Your task to perform on an android device: turn off airplane mode Image 0: 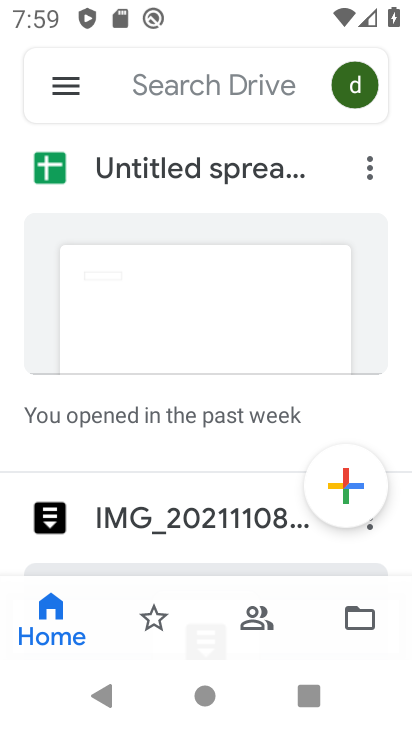
Step 0: press home button
Your task to perform on an android device: turn off airplane mode Image 1: 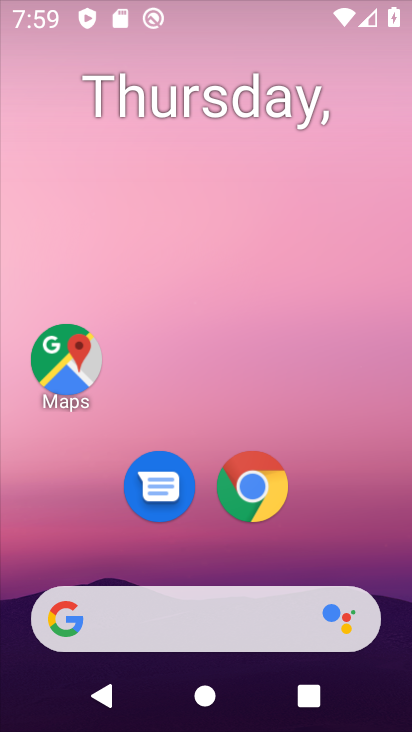
Step 1: drag from (221, 613) to (328, 126)
Your task to perform on an android device: turn off airplane mode Image 2: 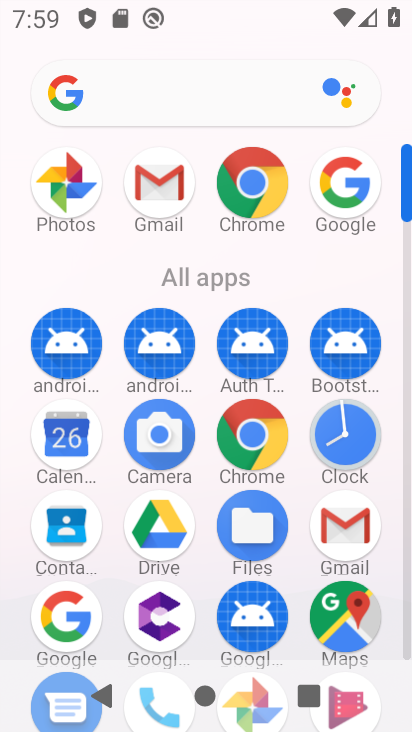
Step 2: drag from (253, 530) to (335, 54)
Your task to perform on an android device: turn off airplane mode Image 3: 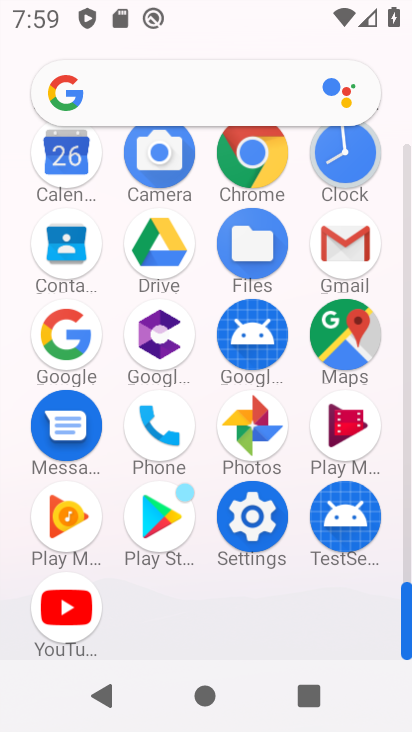
Step 3: click (259, 538)
Your task to perform on an android device: turn off airplane mode Image 4: 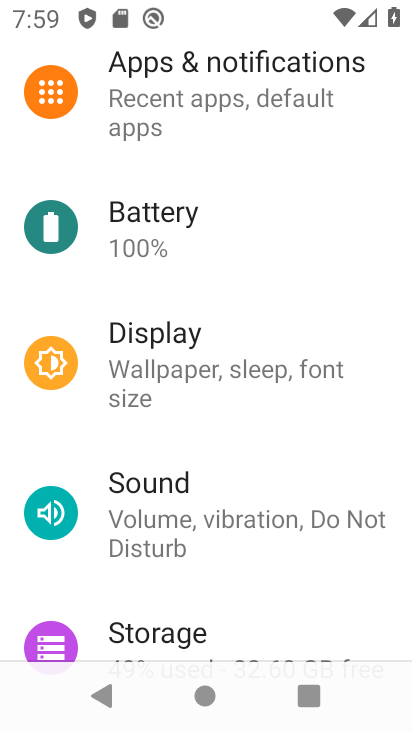
Step 4: drag from (195, 263) to (97, 728)
Your task to perform on an android device: turn off airplane mode Image 5: 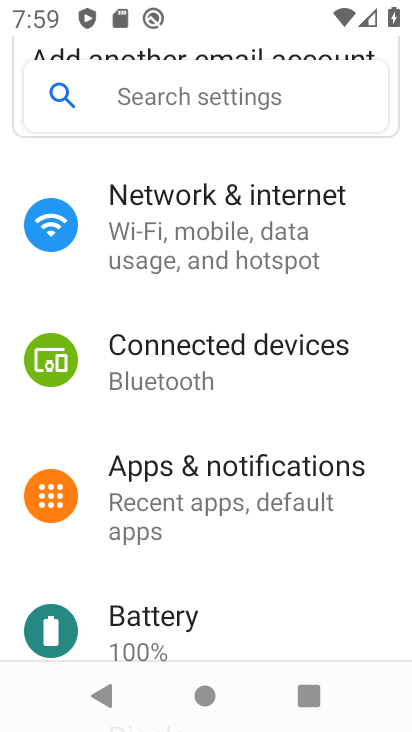
Step 5: drag from (202, 399) to (182, 605)
Your task to perform on an android device: turn off airplane mode Image 6: 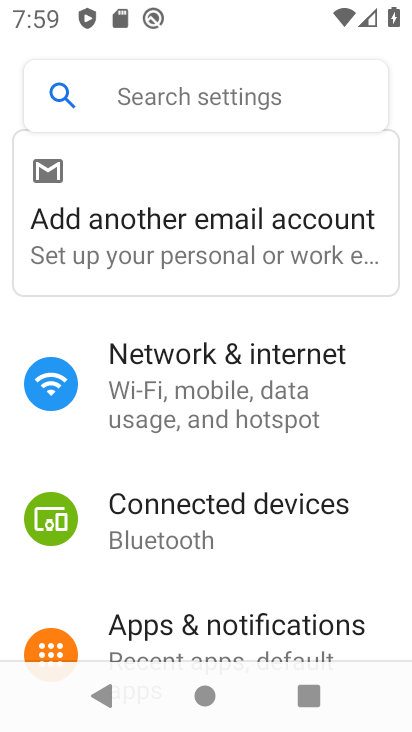
Step 6: click (303, 382)
Your task to perform on an android device: turn off airplane mode Image 7: 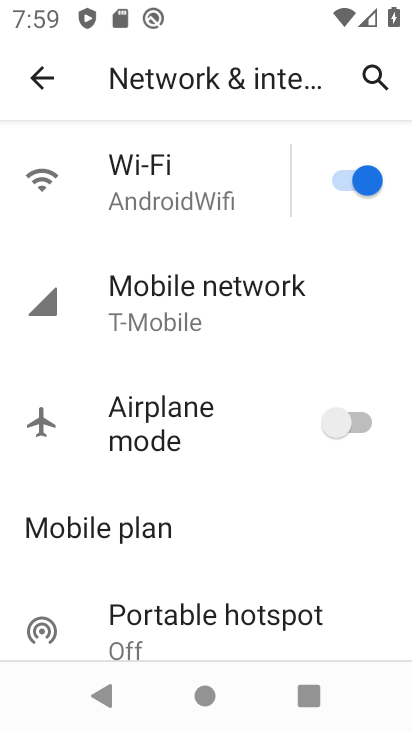
Step 7: task complete